Your task to perform on an android device: Go to ESPN.com Image 0: 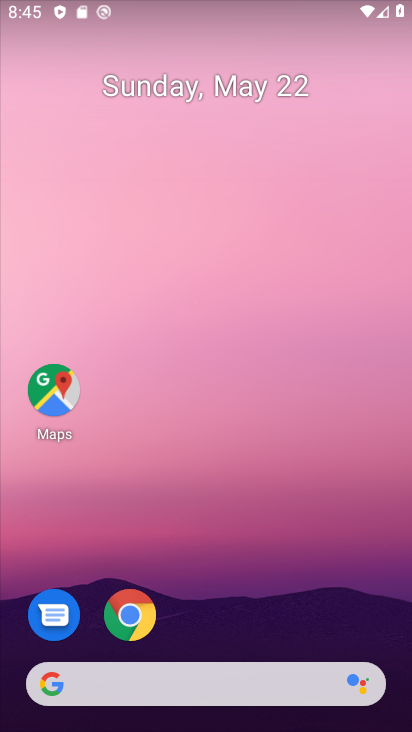
Step 0: drag from (232, 606) to (260, 119)
Your task to perform on an android device: Go to ESPN.com Image 1: 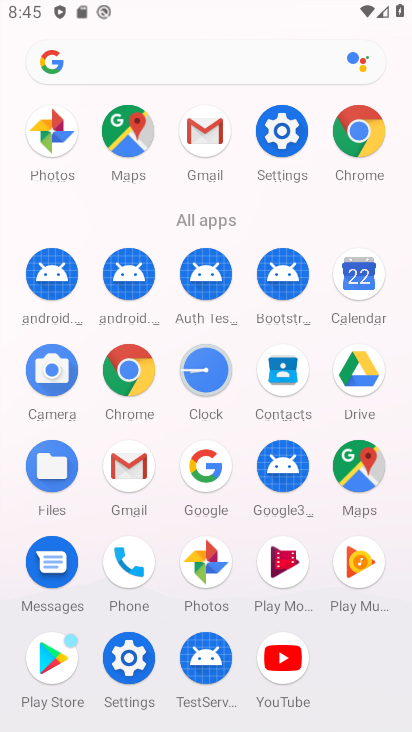
Step 1: click (210, 464)
Your task to perform on an android device: Go to ESPN.com Image 2: 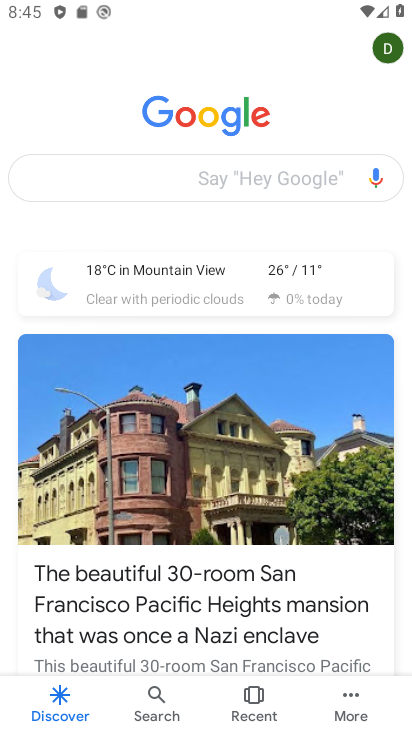
Step 2: click (270, 180)
Your task to perform on an android device: Go to ESPN.com Image 3: 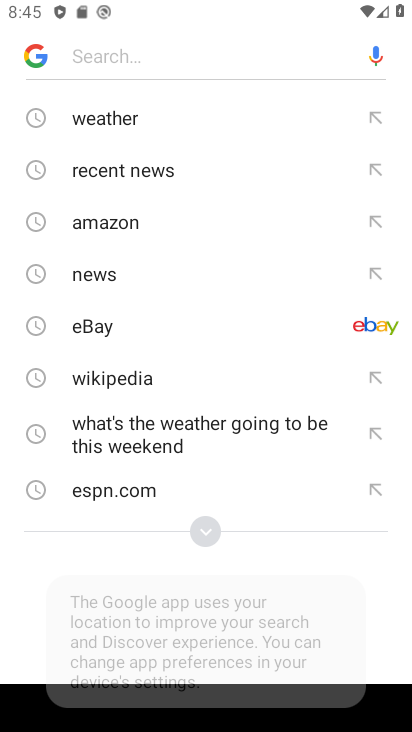
Step 3: click (140, 488)
Your task to perform on an android device: Go to ESPN.com Image 4: 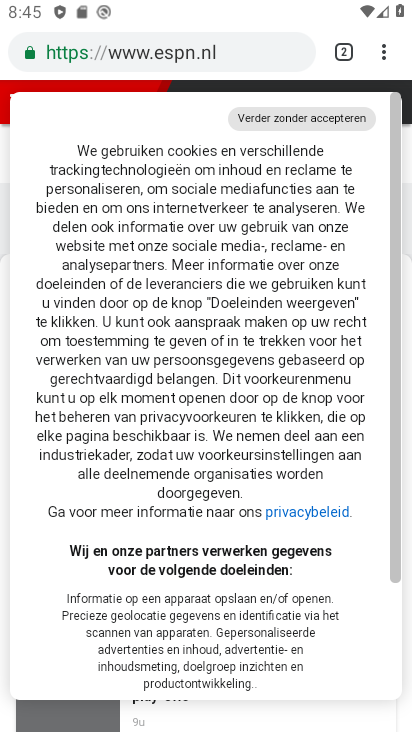
Step 4: task complete